Your task to perform on an android device: open a bookmark in the chrome app Image 0: 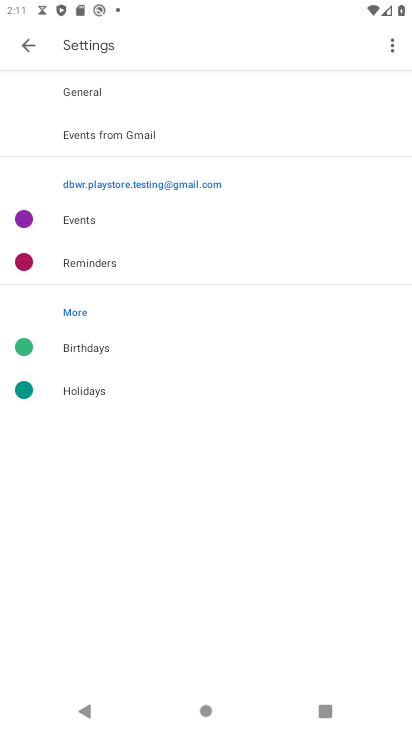
Step 0: press home button
Your task to perform on an android device: open a bookmark in the chrome app Image 1: 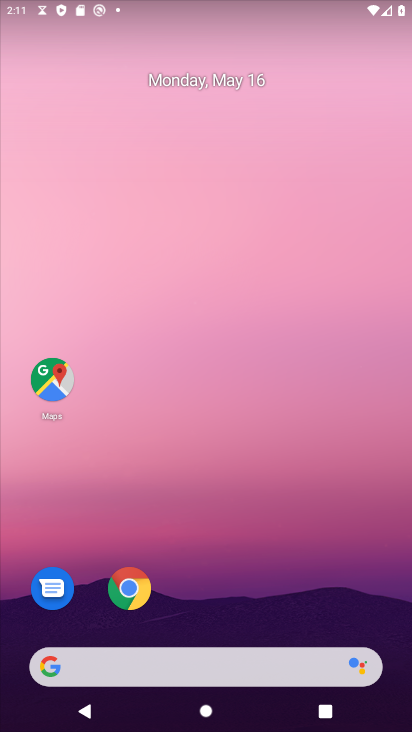
Step 1: click (126, 588)
Your task to perform on an android device: open a bookmark in the chrome app Image 2: 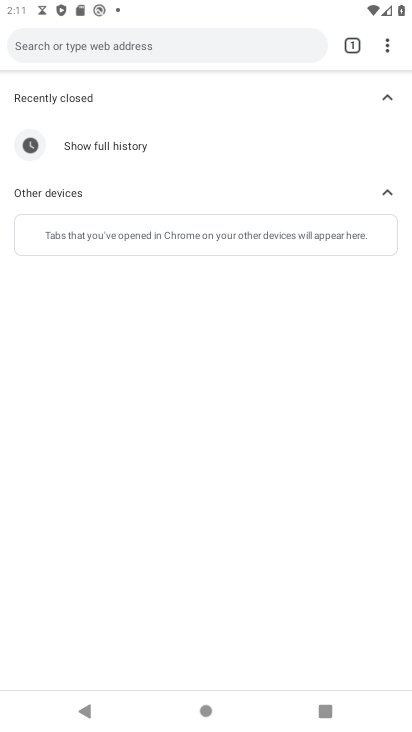
Step 2: click (388, 47)
Your task to perform on an android device: open a bookmark in the chrome app Image 3: 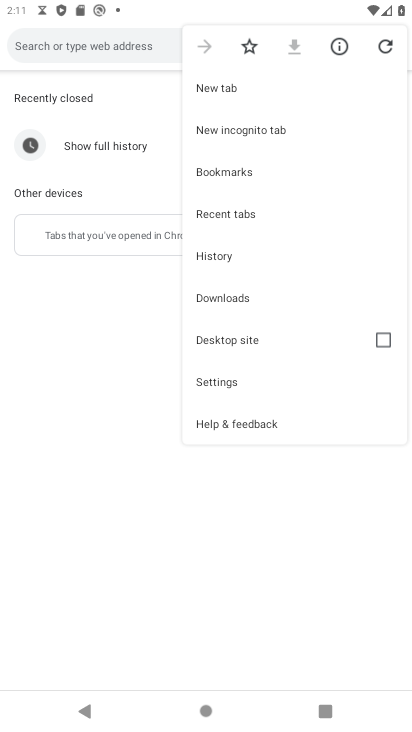
Step 3: click (228, 169)
Your task to perform on an android device: open a bookmark in the chrome app Image 4: 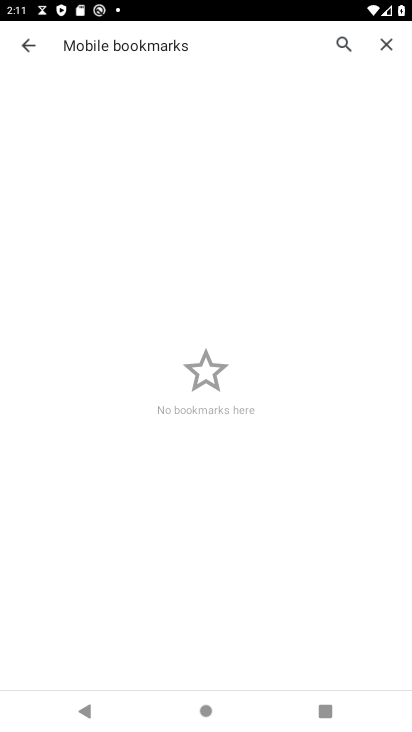
Step 4: task complete